Your task to perform on an android device: turn on priority inbox in the gmail app Image 0: 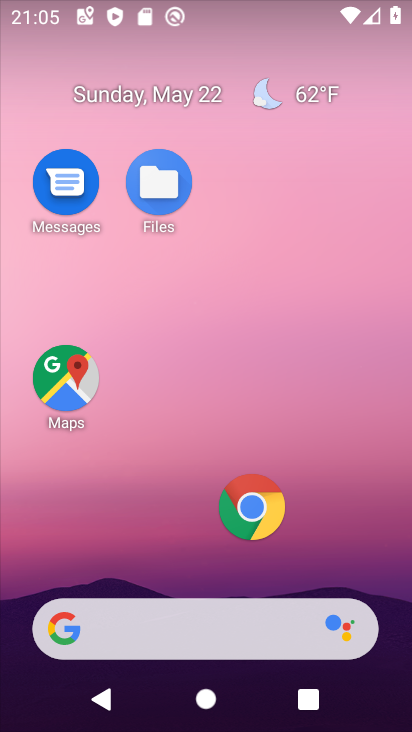
Step 0: drag from (199, 554) to (139, 4)
Your task to perform on an android device: turn on priority inbox in the gmail app Image 1: 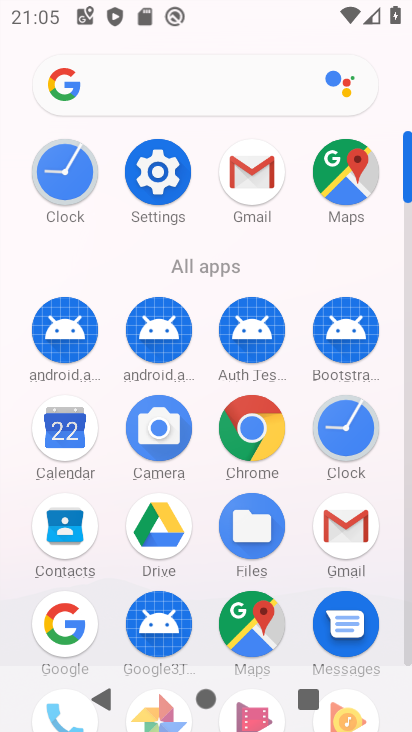
Step 1: click (347, 532)
Your task to perform on an android device: turn on priority inbox in the gmail app Image 2: 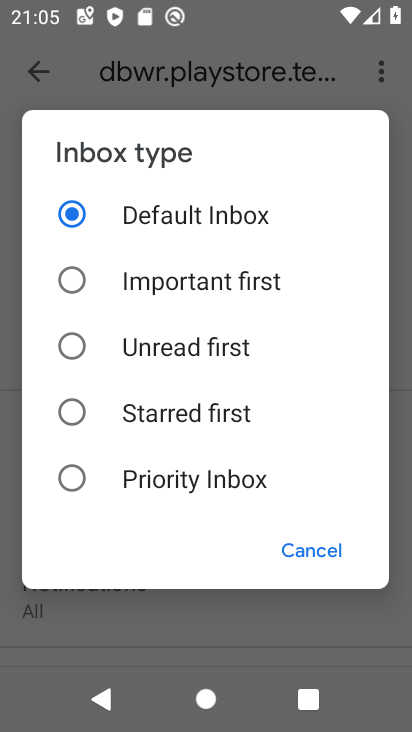
Step 2: click (192, 458)
Your task to perform on an android device: turn on priority inbox in the gmail app Image 3: 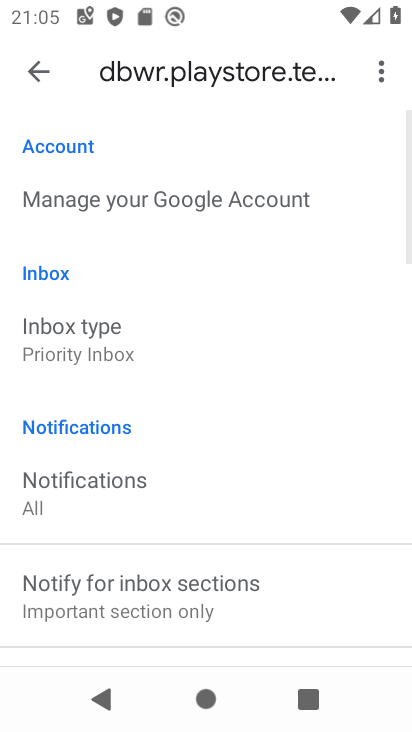
Step 3: task complete